Your task to perform on an android device: Open the phone app and click the voicemail tab. Image 0: 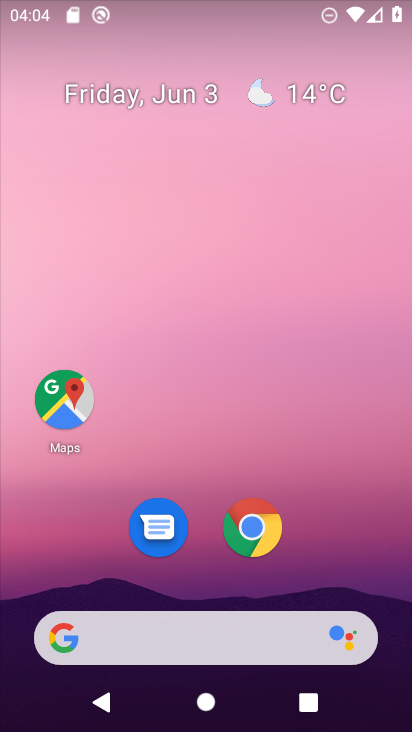
Step 0: drag from (322, 539) to (233, 0)
Your task to perform on an android device: Open the phone app and click the voicemail tab. Image 1: 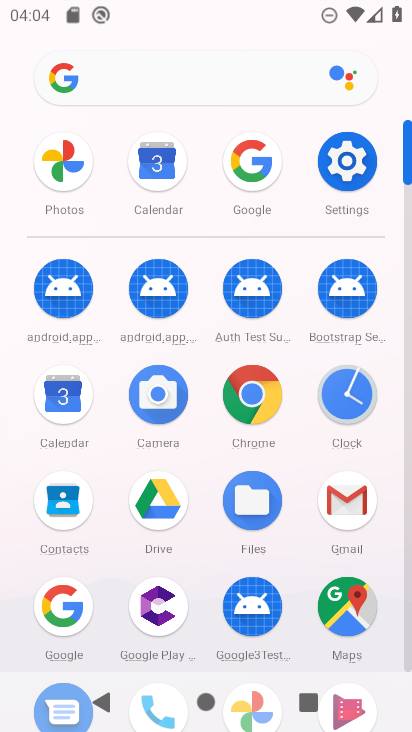
Step 1: drag from (205, 256) to (231, 4)
Your task to perform on an android device: Open the phone app and click the voicemail tab. Image 2: 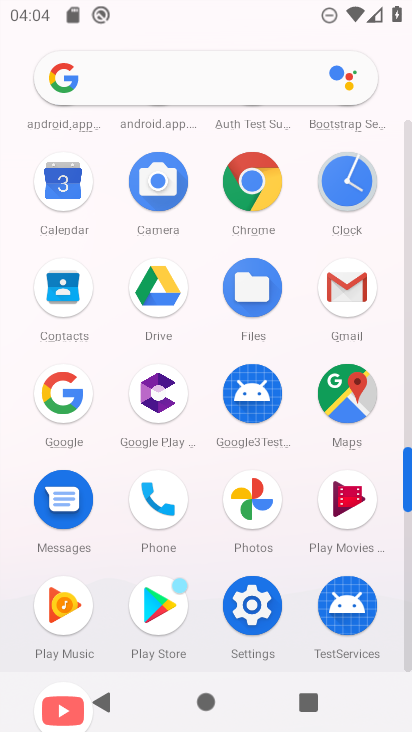
Step 2: click (149, 498)
Your task to perform on an android device: Open the phone app and click the voicemail tab. Image 3: 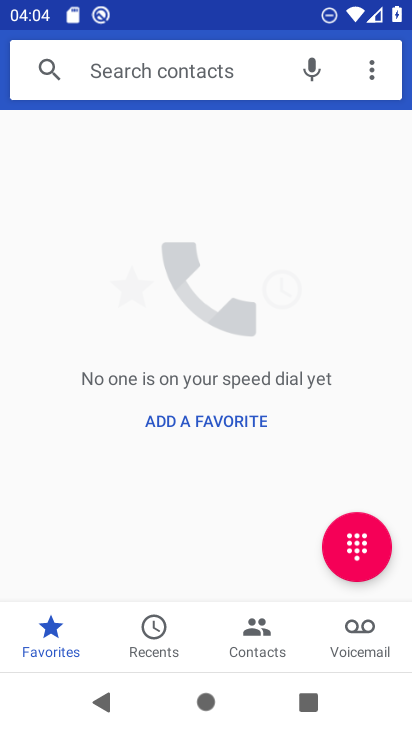
Step 3: click (360, 632)
Your task to perform on an android device: Open the phone app and click the voicemail tab. Image 4: 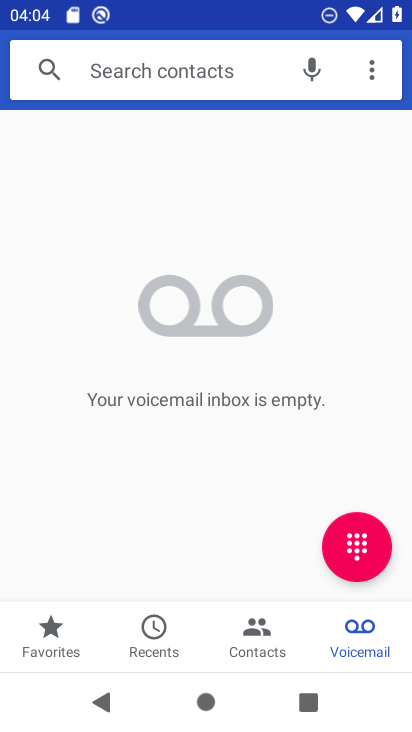
Step 4: task complete